Your task to perform on an android device: visit the assistant section in the google photos Image 0: 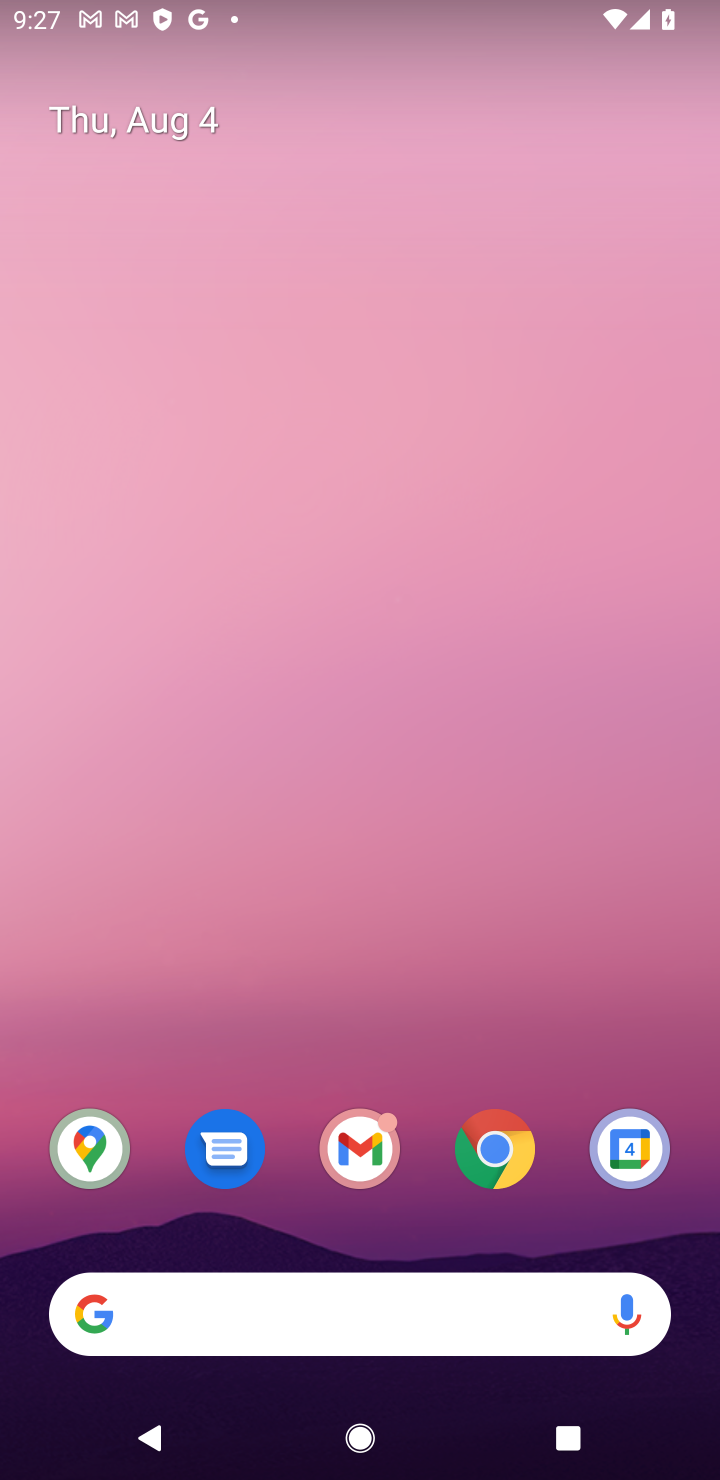
Step 0: drag from (549, 1201) to (504, 226)
Your task to perform on an android device: visit the assistant section in the google photos Image 1: 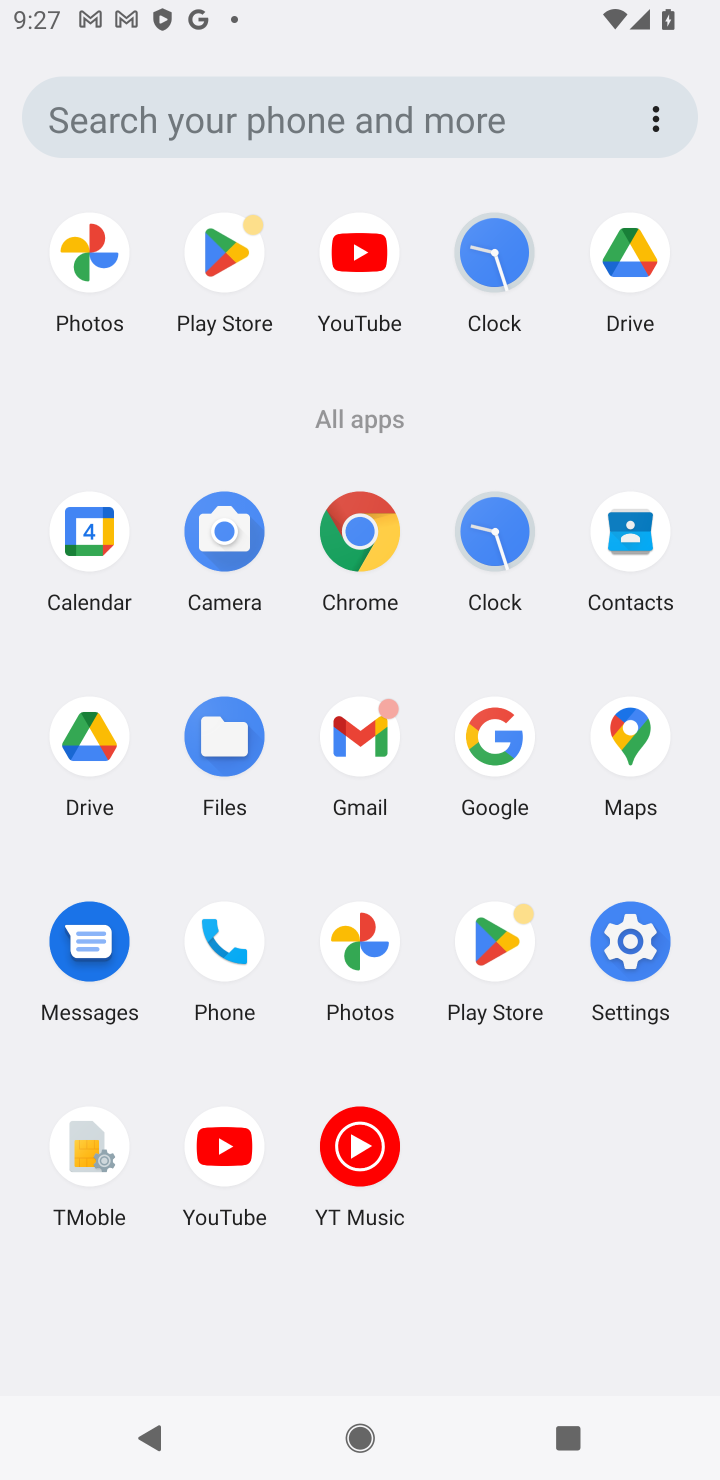
Step 1: click (363, 936)
Your task to perform on an android device: visit the assistant section in the google photos Image 2: 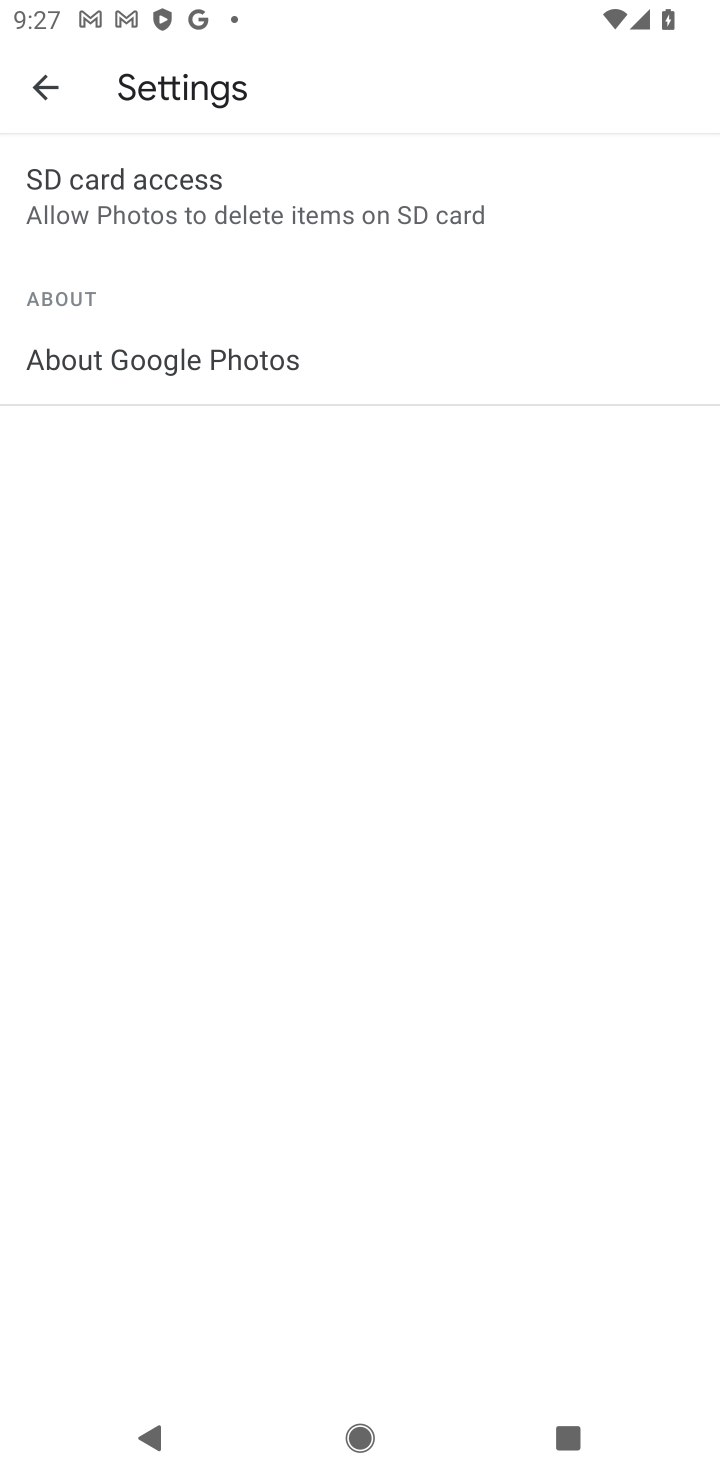
Step 2: press back button
Your task to perform on an android device: visit the assistant section in the google photos Image 3: 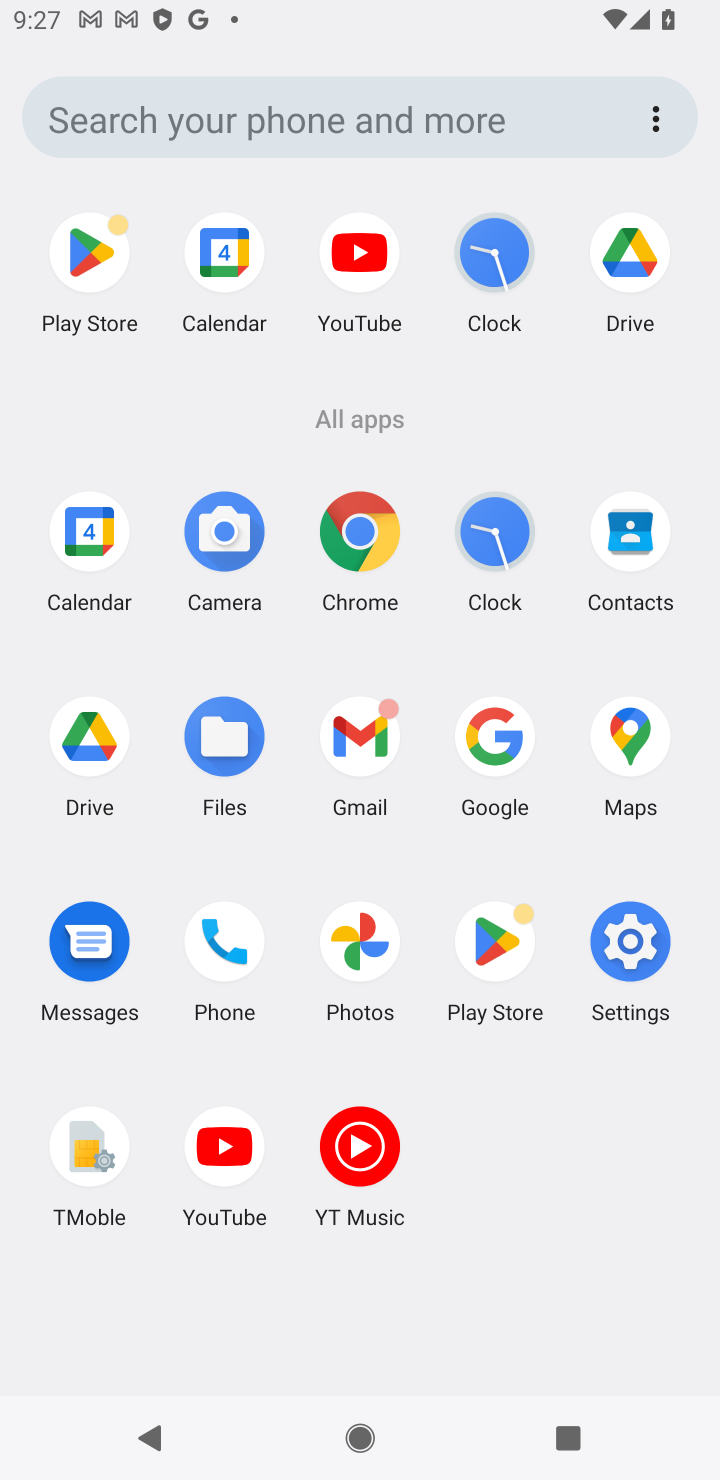
Step 3: click (359, 930)
Your task to perform on an android device: visit the assistant section in the google photos Image 4: 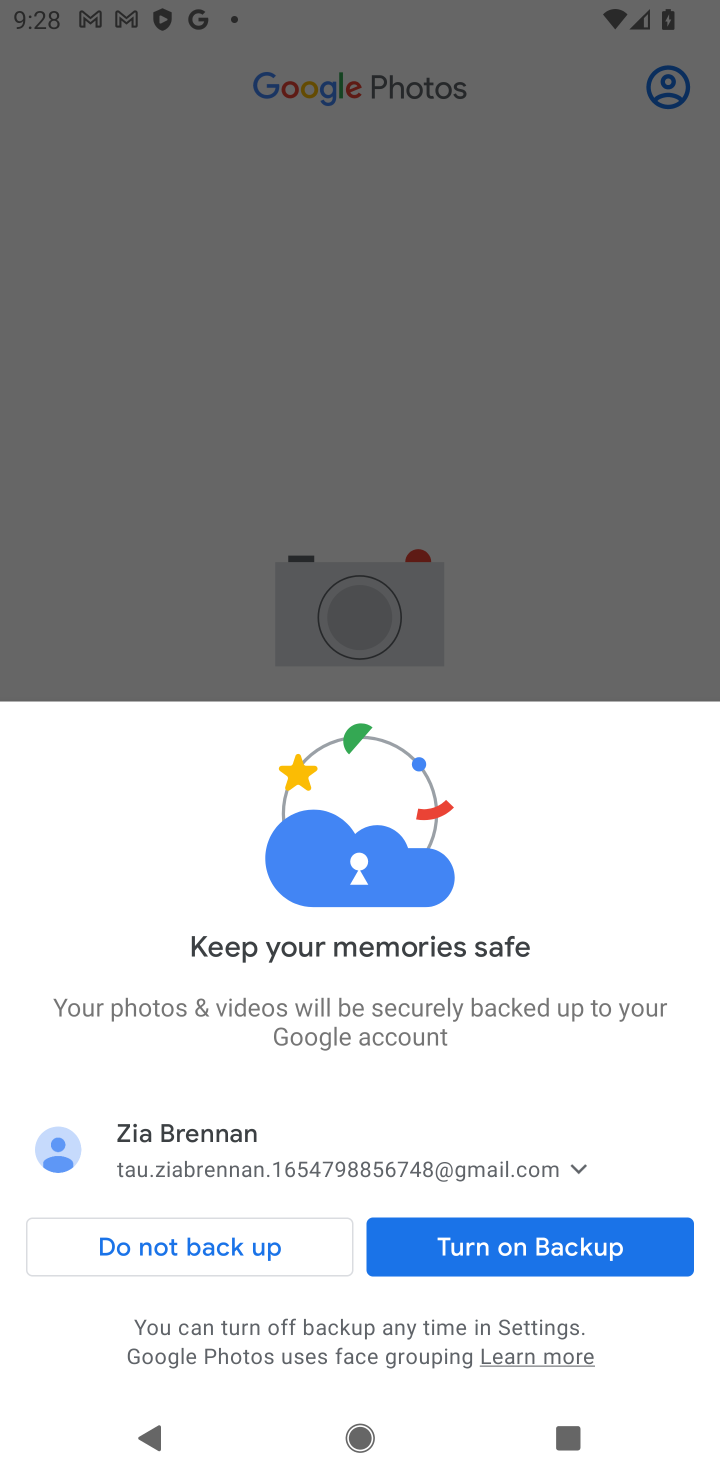
Step 4: click (511, 1259)
Your task to perform on an android device: visit the assistant section in the google photos Image 5: 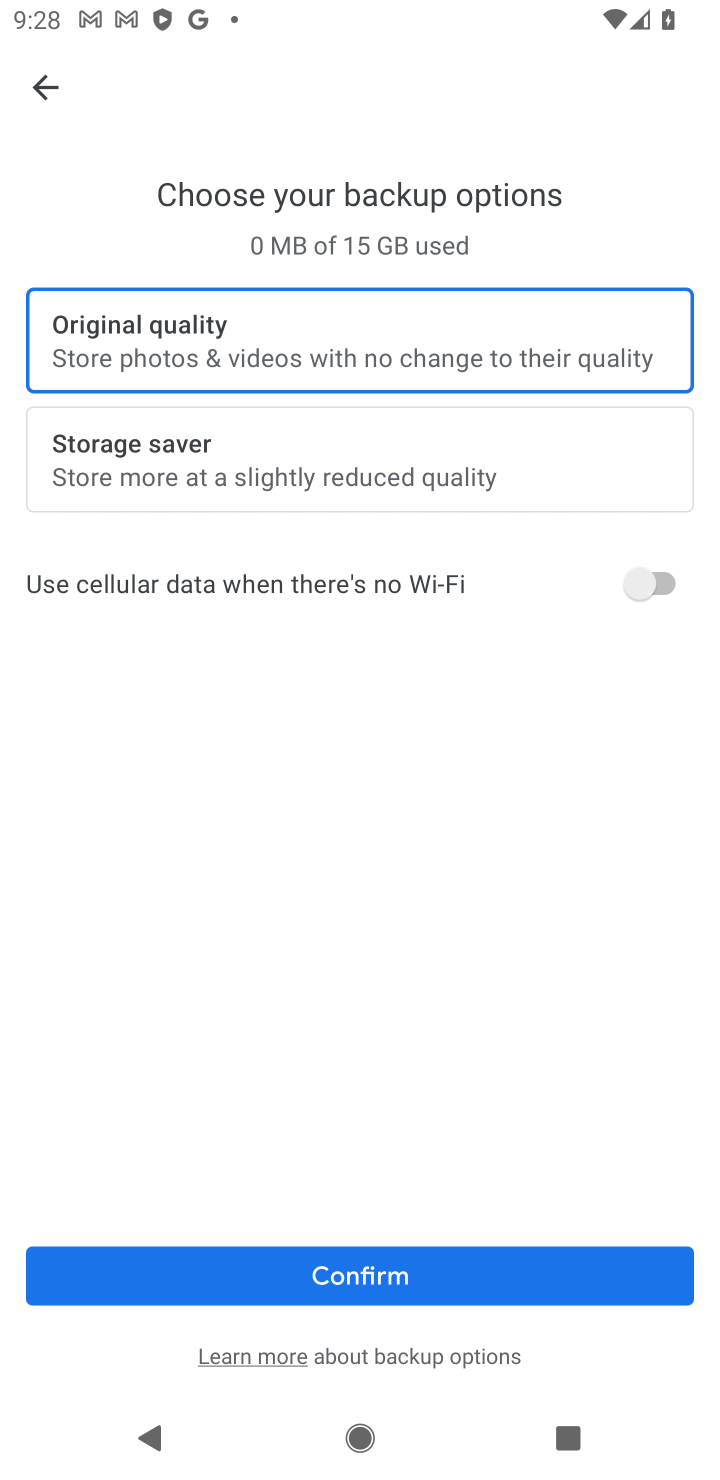
Step 5: click (335, 1276)
Your task to perform on an android device: visit the assistant section in the google photos Image 6: 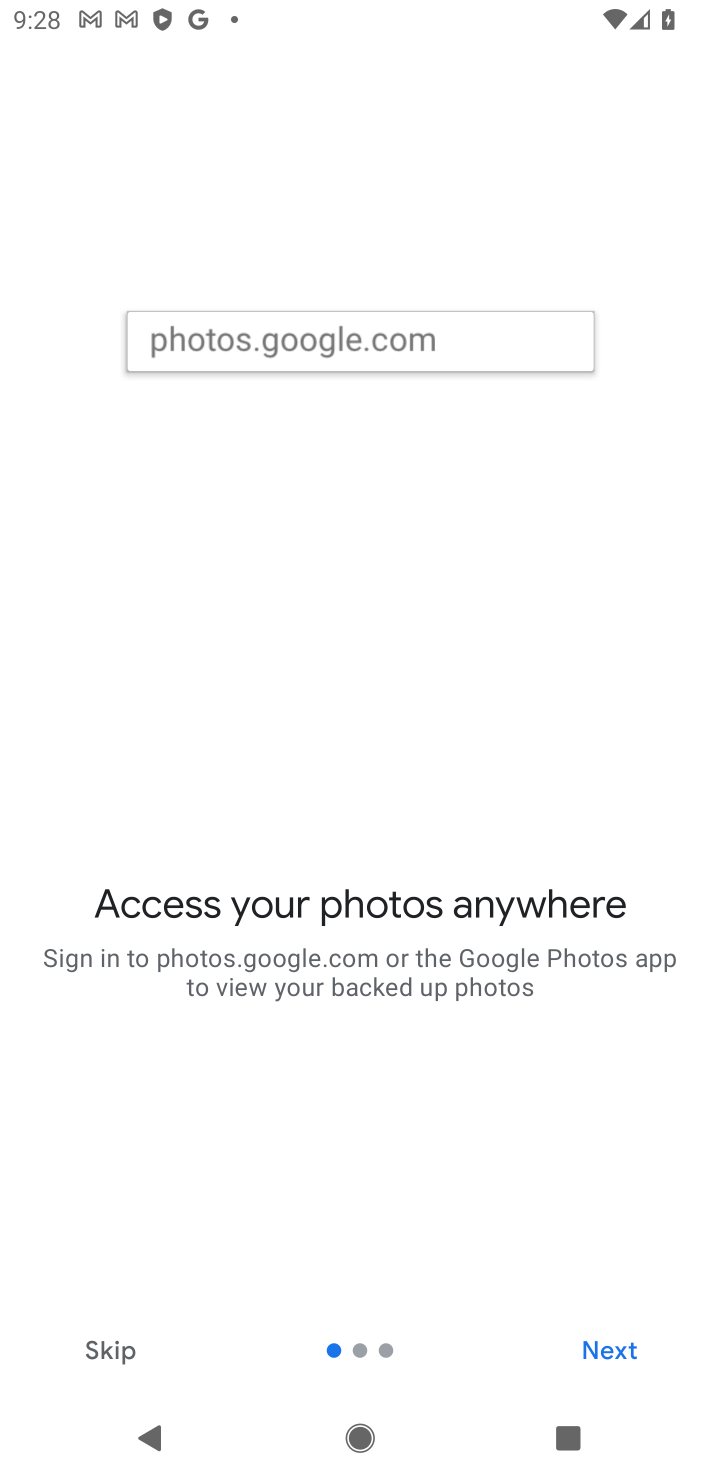
Step 6: click (107, 1343)
Your task to perform on an android device: visit the assistant section in the google photos Image 7: 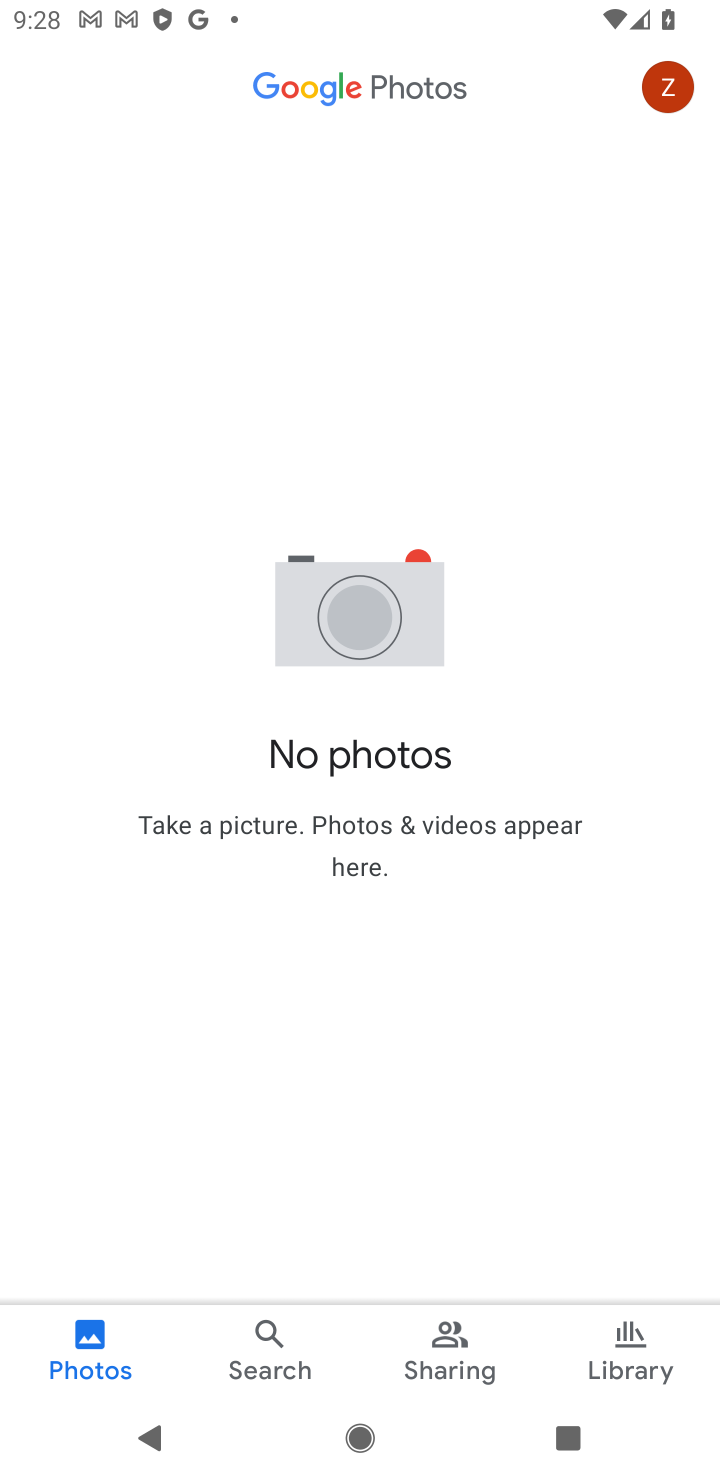
Step 7: task complete